Your task to perform on an android device: What is the recent news? Image 0: 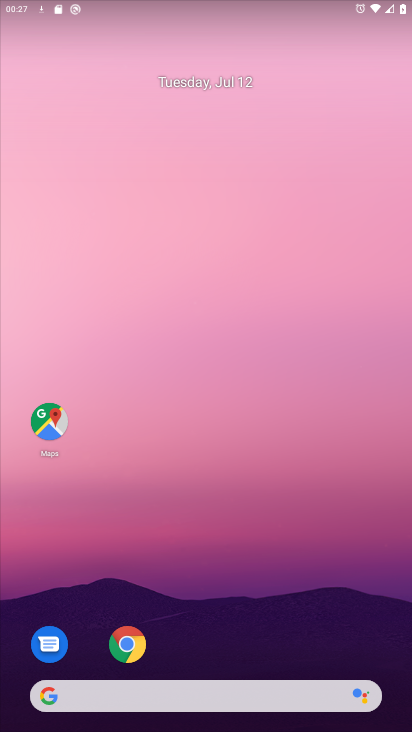
Step 0: drag from (261, 613) to (245, 192)
Your task to perform on an android device: What is the recent news? Image 1: 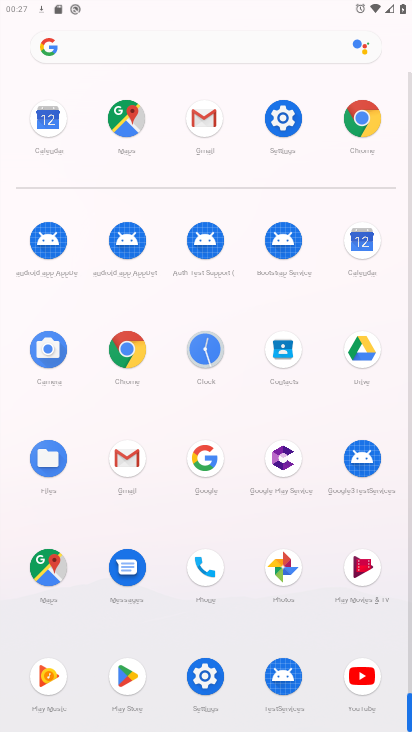
Step 1: click (351, 114)
Your task to perform on an android device: What is the recent news? Image 2: 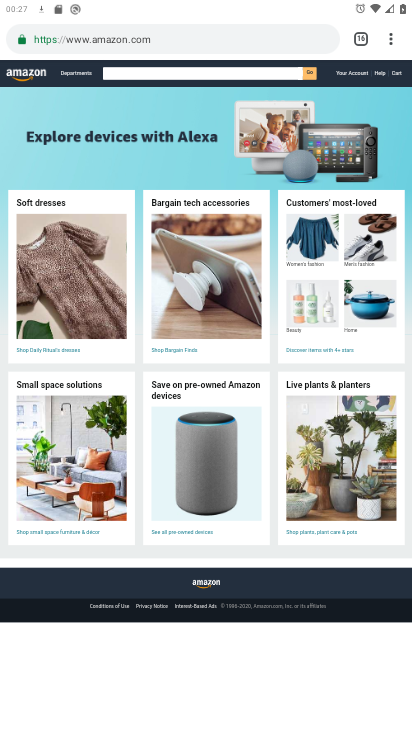
Step 2: click (386, 26)
Your task to perform on an android device: What is the recent news? Image 3: 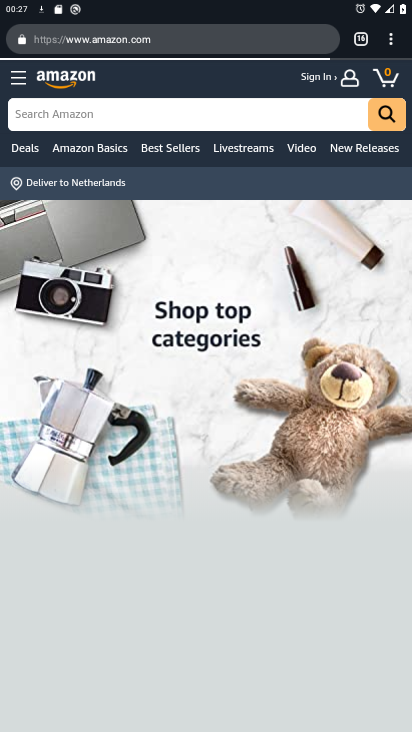
Step 3: click (398, 24)
Your task to perform on an android device: What is the recent news? Image 4: 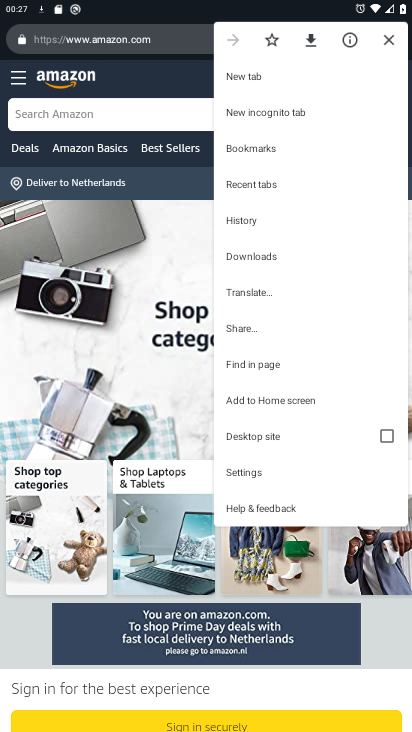
Step 4: click (280, 76)
Your task to perform on an android device: What is the recent news? Image 5: 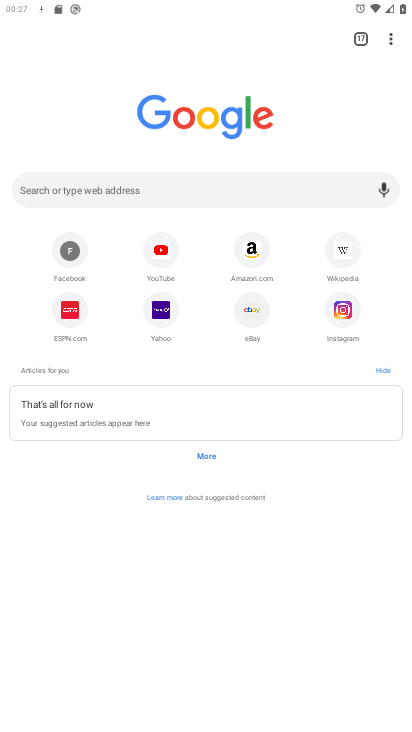
Step 5: click (190, 179)
Your task to perform on an android device: What is the recent news? Image 6: 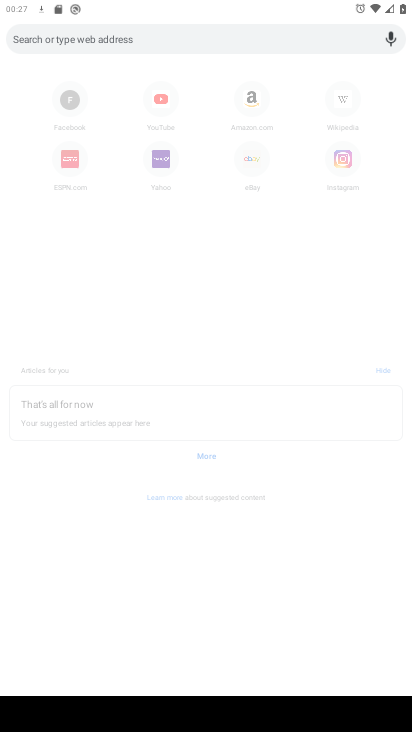
Step 6: click (220, 27)
Your task to perform on an android device: What is the recent news? Image 7: 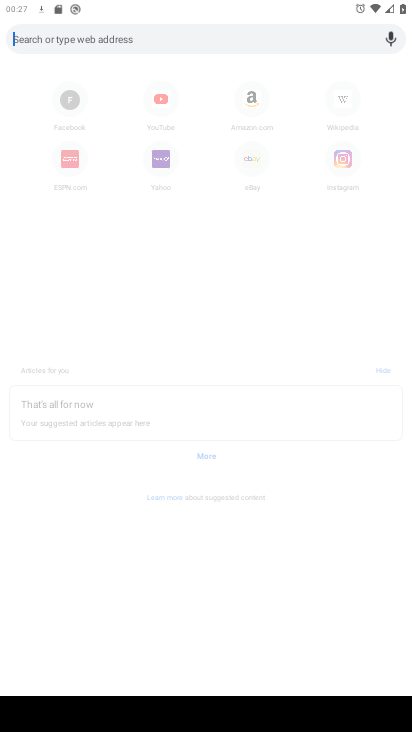
Step 7: type "What is the recent news "
Your task to perform on an android device: What is the recent news? Image 8: 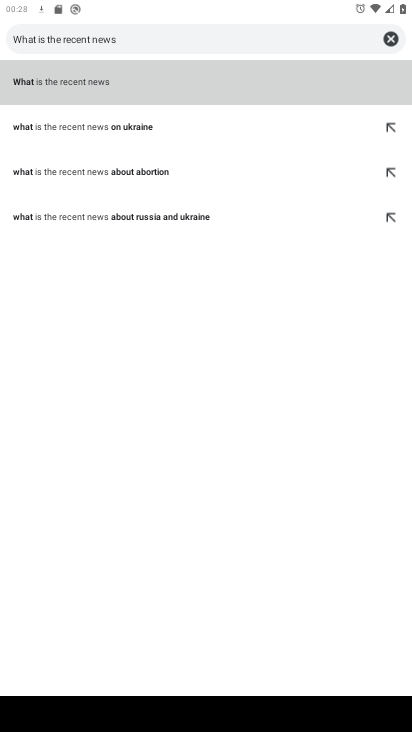
Step 8: click (129, 84)
Your task to perform on an android device: What is the recent news? Image 9: 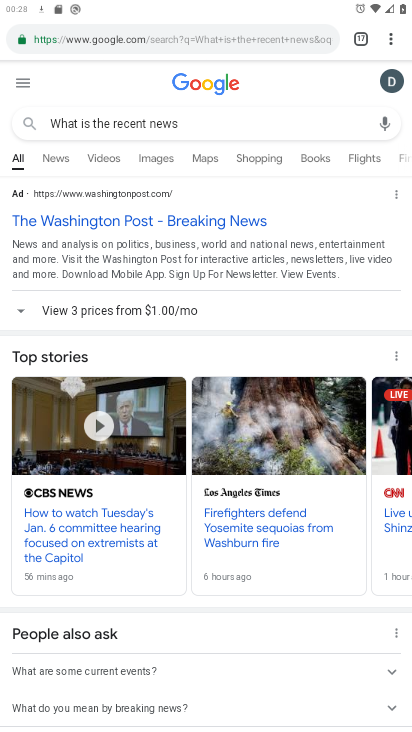
Step 9: task complete